Your task to perform on an android device: turn on the 12-hour format for clock Image 0: 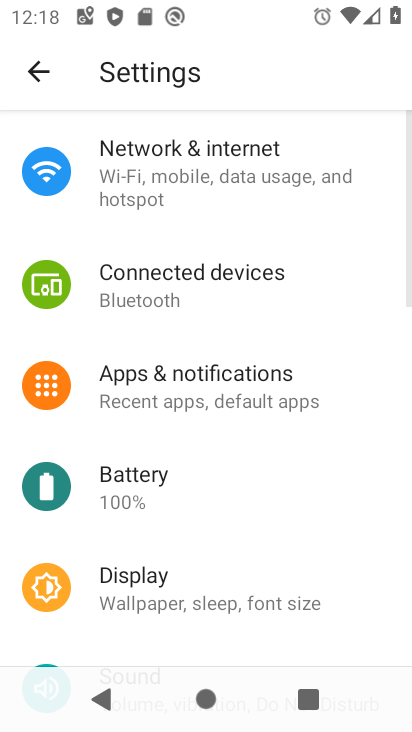
Step 0: press back button
Your task to perform on an android device: turn on the 12-hour format for clock Image 1: 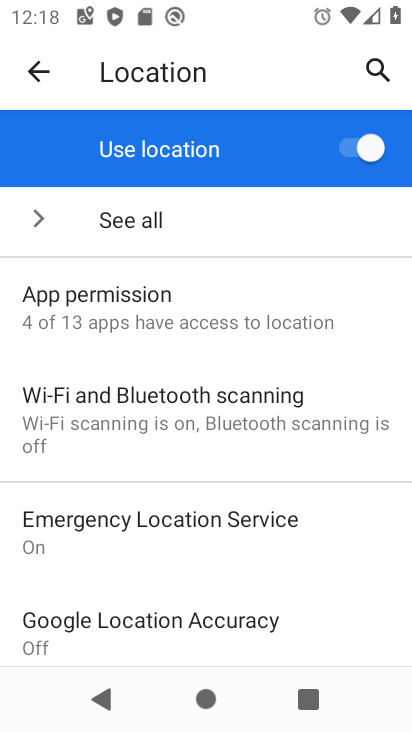
Step 1: press back button
Your task to perform on an android device: turn on the 12-hour format for clock Image 2: 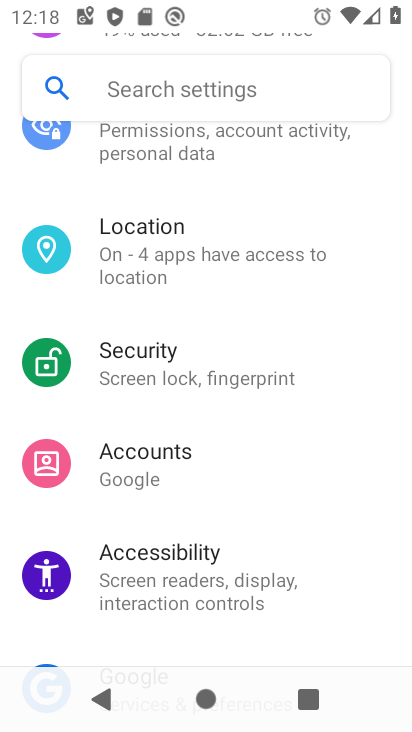
Step 2: press back button
Your task to perform on an android device: turn on the 12-hour format for clock Image 3: 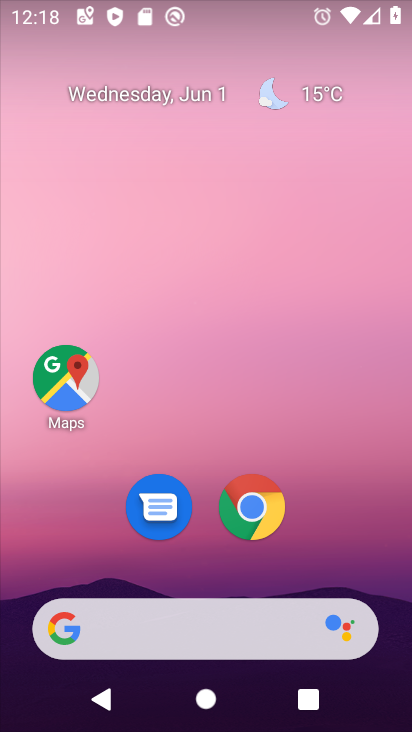
Step 3: drag from (302, 569) to (245, 205)
Your task to perform on an android device: turn on the 12-hour format for clock Image 4: 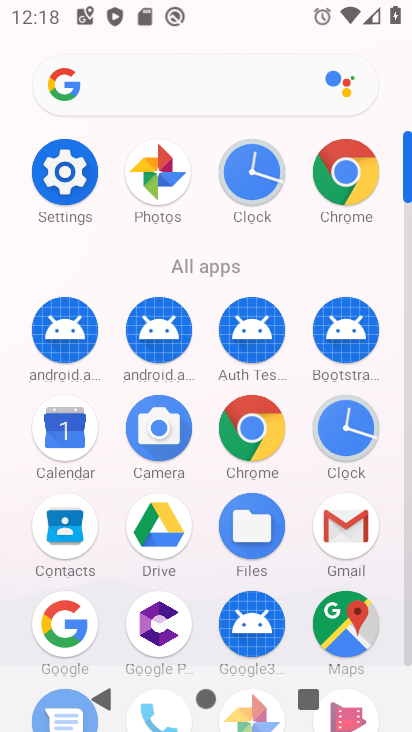
Step 4: click (253, 170)
Your task to perform on an android device: turn on the 12-hour format for clock Image 5: 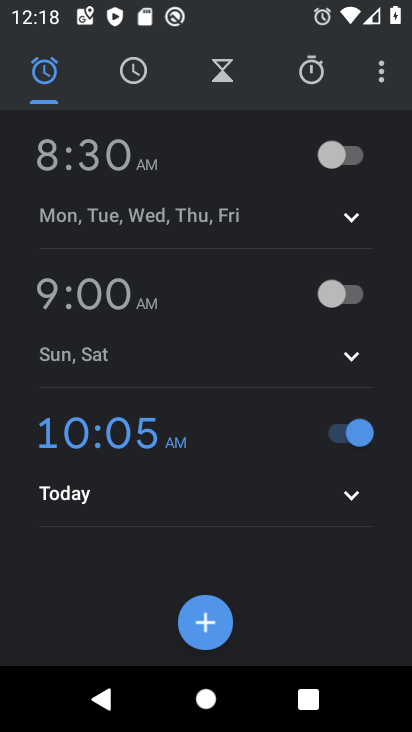
Step 5: click (378, 70)
Your task to perform on an android device: turn on the 12-hour format for clock Image 6: 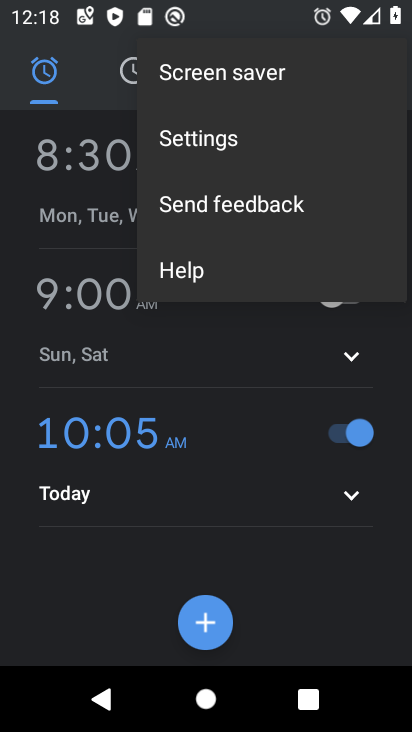
Step 6: click (232, 142)
Your task to perform on an android device: turn on the 12-hour format for clock Image 7: 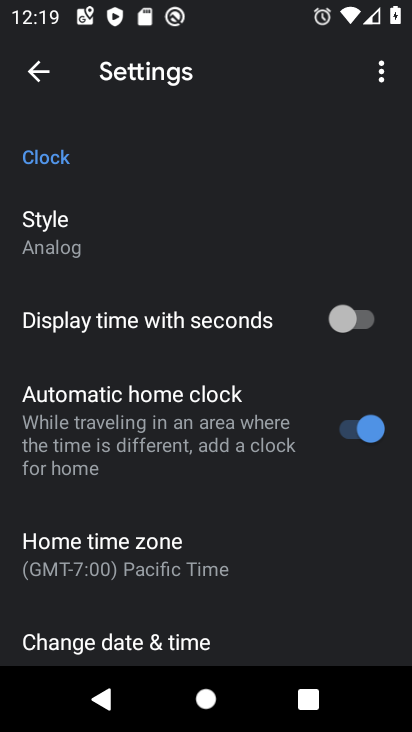
Step 7: click (149, 645)
Your task to perform on an android device: turn on the 12-hour format for clock Image 8: 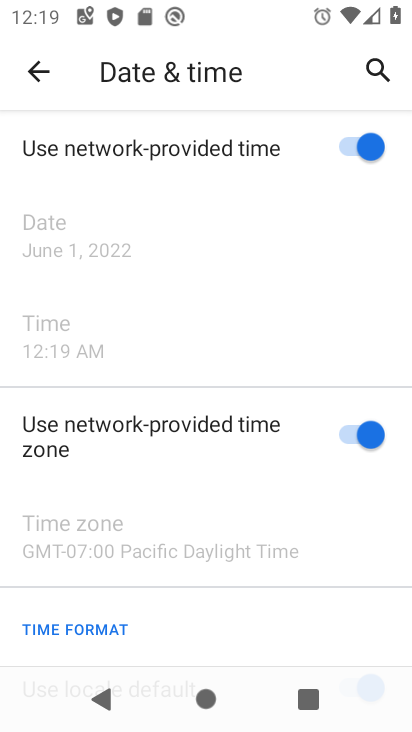
Step 8: task complete